Your task to perform on an android device: uninstall "LinkedIn" Image 0: 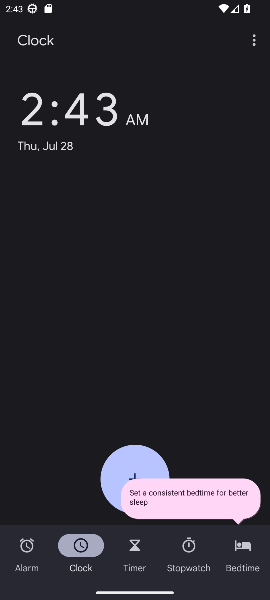
Step 0: press home button
Your task to perform on an android device: uninstall "LinkedIn" Image 1: 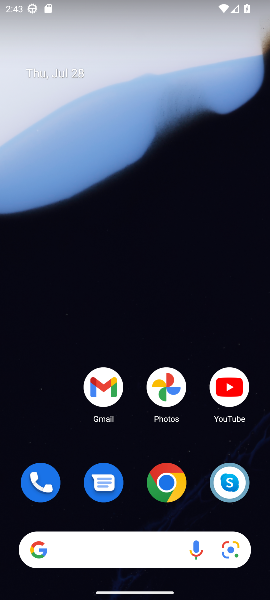
Step 1: drag from (123, 508) to (185, 63)
Your task to perform on an android device: uninstall "LinkedIn" Image 2: 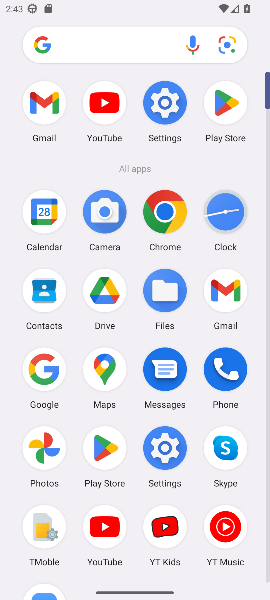
Step 2: click (219, 100)
Your task to perform on an android device: uninstall "LinkedIn" Image 3: 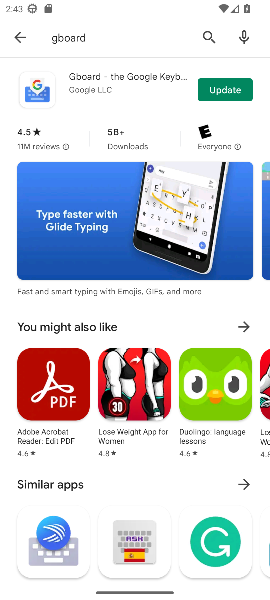
Step 3: click (41, 38)
Your task to perform on an android device: uninstall "LinkedIn" Image 4: 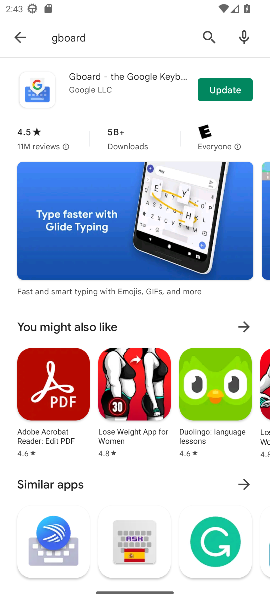
Step 4: click (22, 38)
Your task to perform on an android device: uninstall "LinkedIn" Image 5: 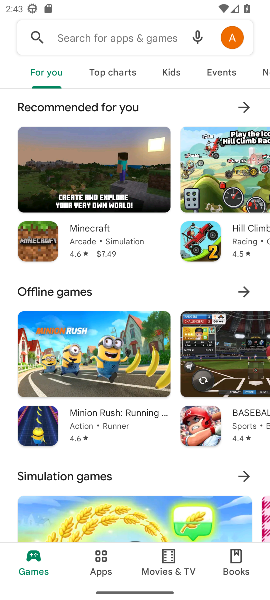
Step 5: click (70, 29)
Your task to perform on an android device: uninstall "LinkedIn" Image 6: 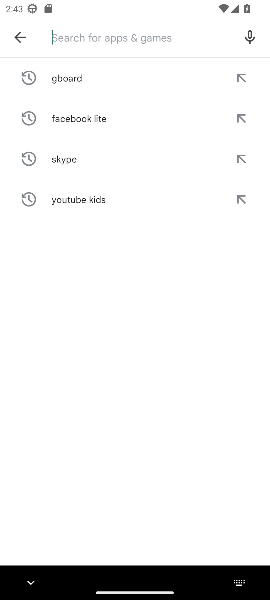
Step 6: type "Linkedin"
Your task to perform on an android device: uninstall "LinkedIn" Image 7: 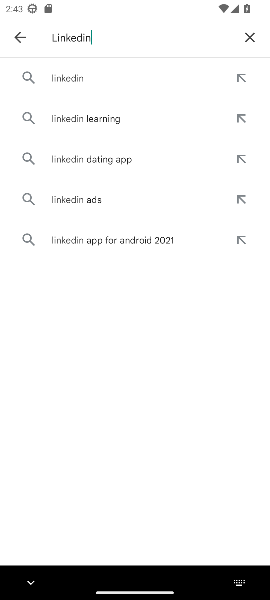
Step 7: click (63, 68)
Your task to perform on an android device: uninstall "LinkedIn" Image 8: 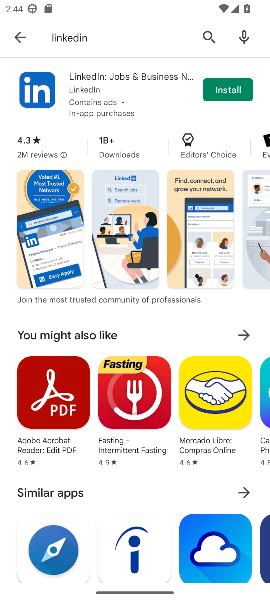
Step 8: task complete